Your task to perform on an android device: toggle sleep mode Image 0: 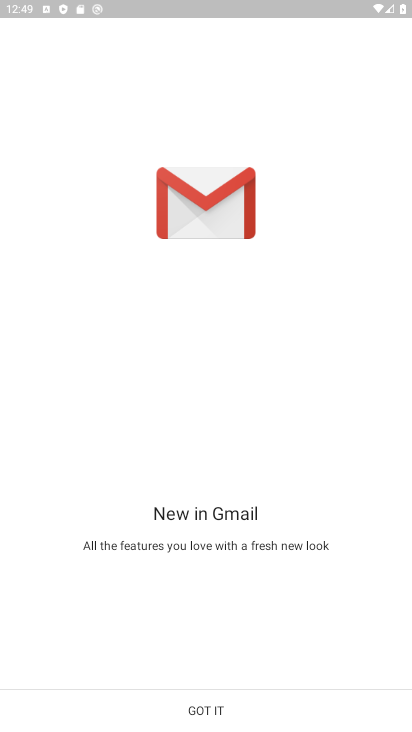
Step 0: press home button
Your task to perform on an android device: toggle sleep mode Image 1: 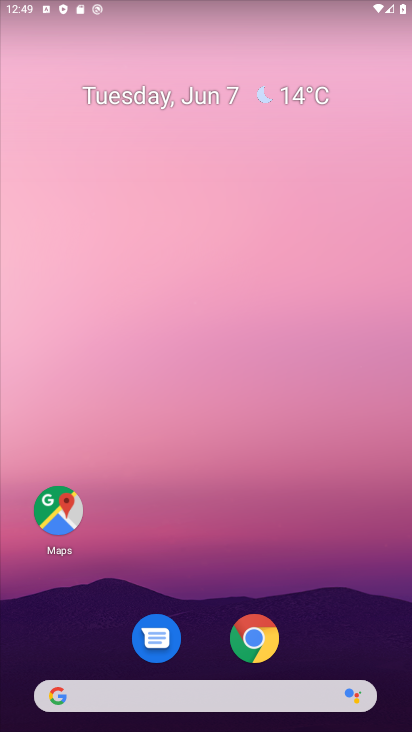
Step 1: drag from (218, 652) to (230, 200)
Your task to perform on an android device: toggle sleep mode Image 2: 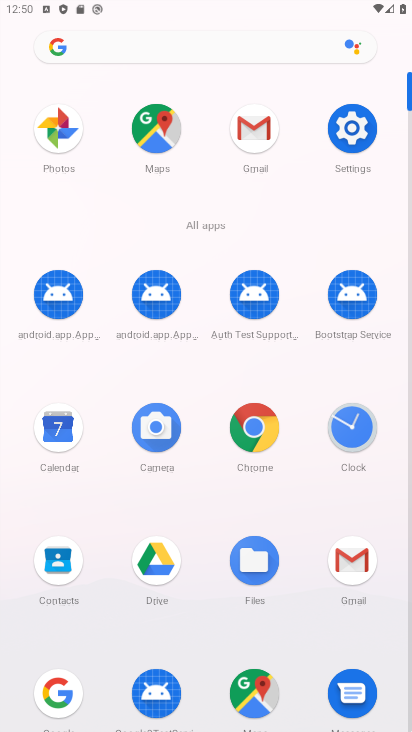
Step 2: click (358, 124)
Your task to perform on an android device: toggle sleep mode Image 3: 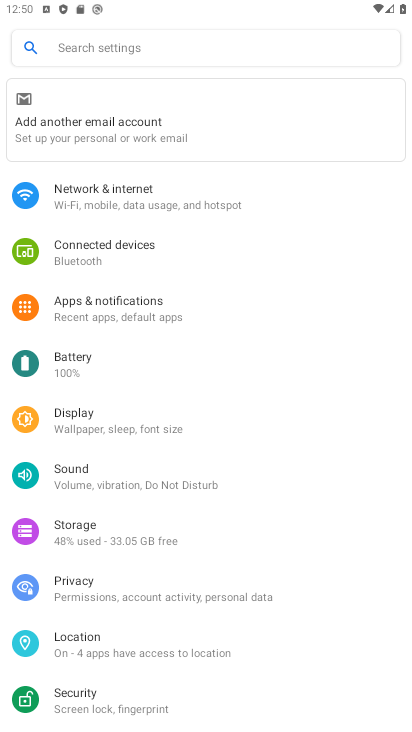
Step 3: click (122, 410)
Your task to perform on an android device: toggle sleep mode Image 4: 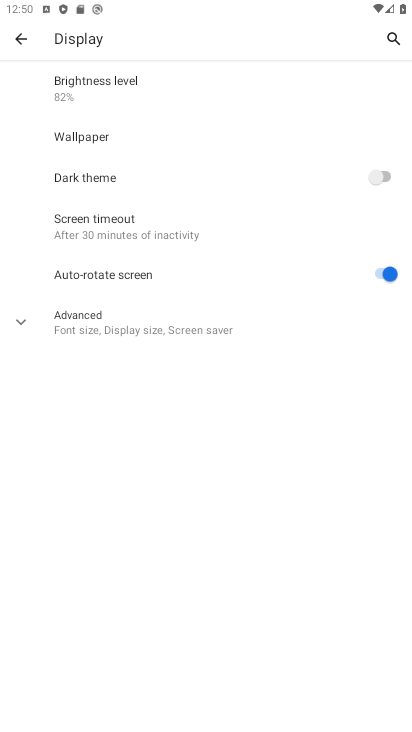
Step 4: task complete